Your task to perform on an android device: Add "beats solo 3" to the cart on ebay.com, then select checkout. Image 0: 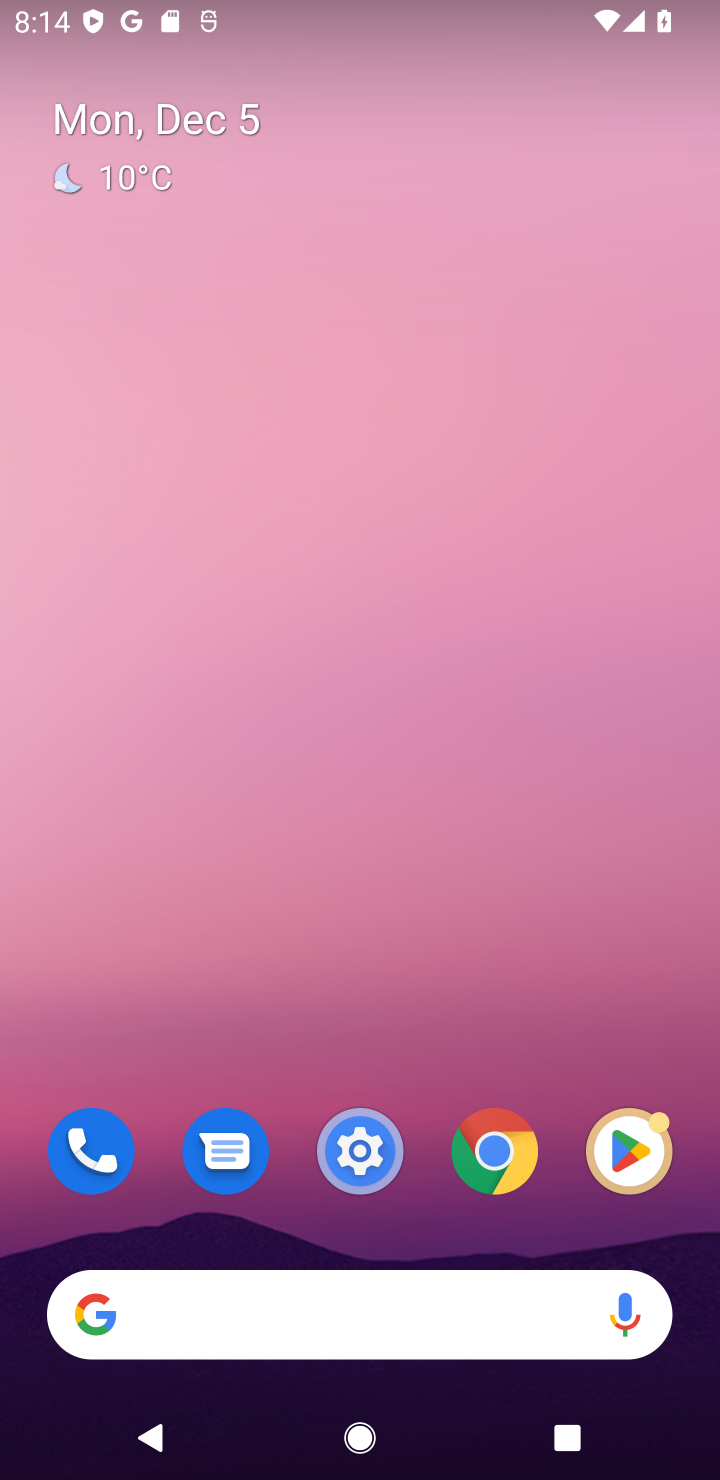
Step 0: click (356, 1326)
Your task to perform on an android device: Add "beats solo 3" to the cart on ebay.com, then select checkout. Image 1: 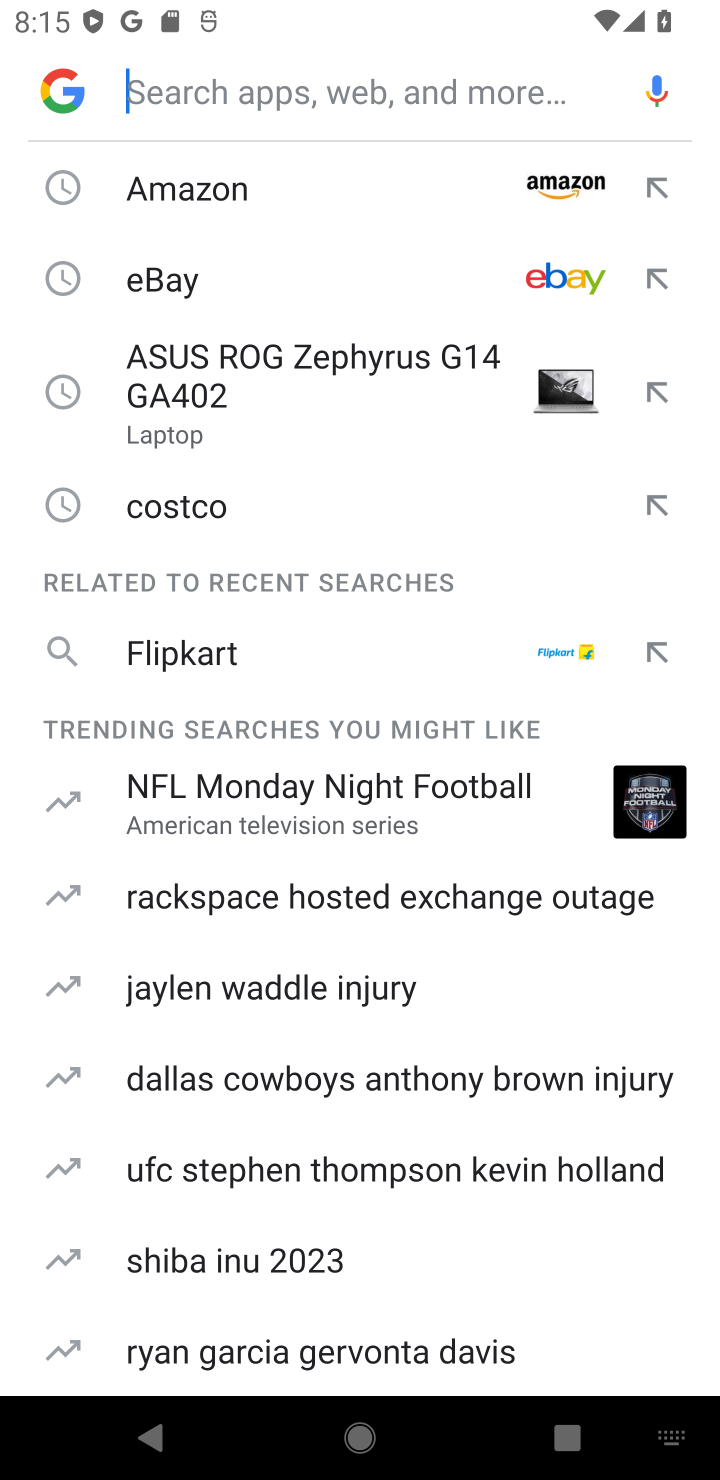
Step 1: type "ebay.com"
Your task to perform on an android device: Add "beats solo 3" to the cart on ebay.com, then select checkout. Image 2: 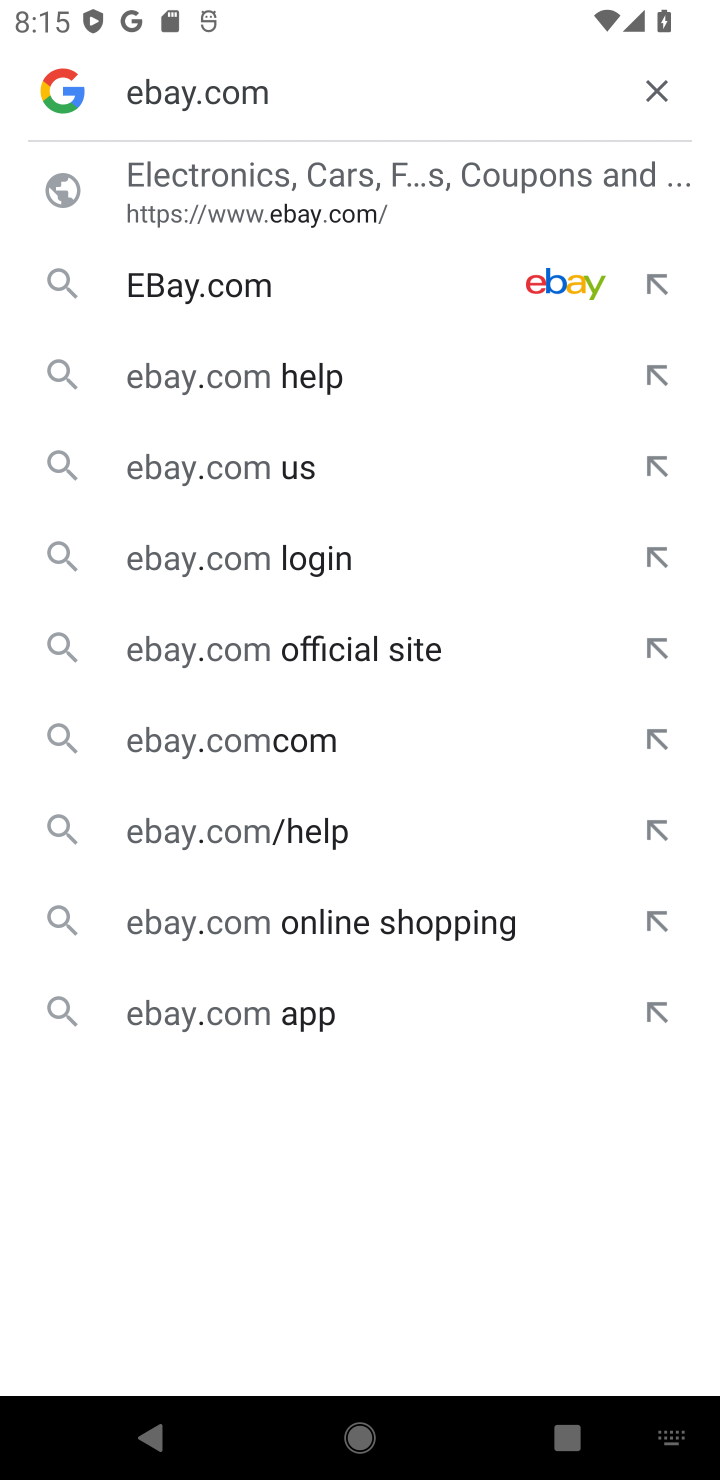
Step 2: click (379, 217)
Your task to perform on an android device: Add "beats solo 3" to the cart on ebay.com, then select checkout. Image 3: 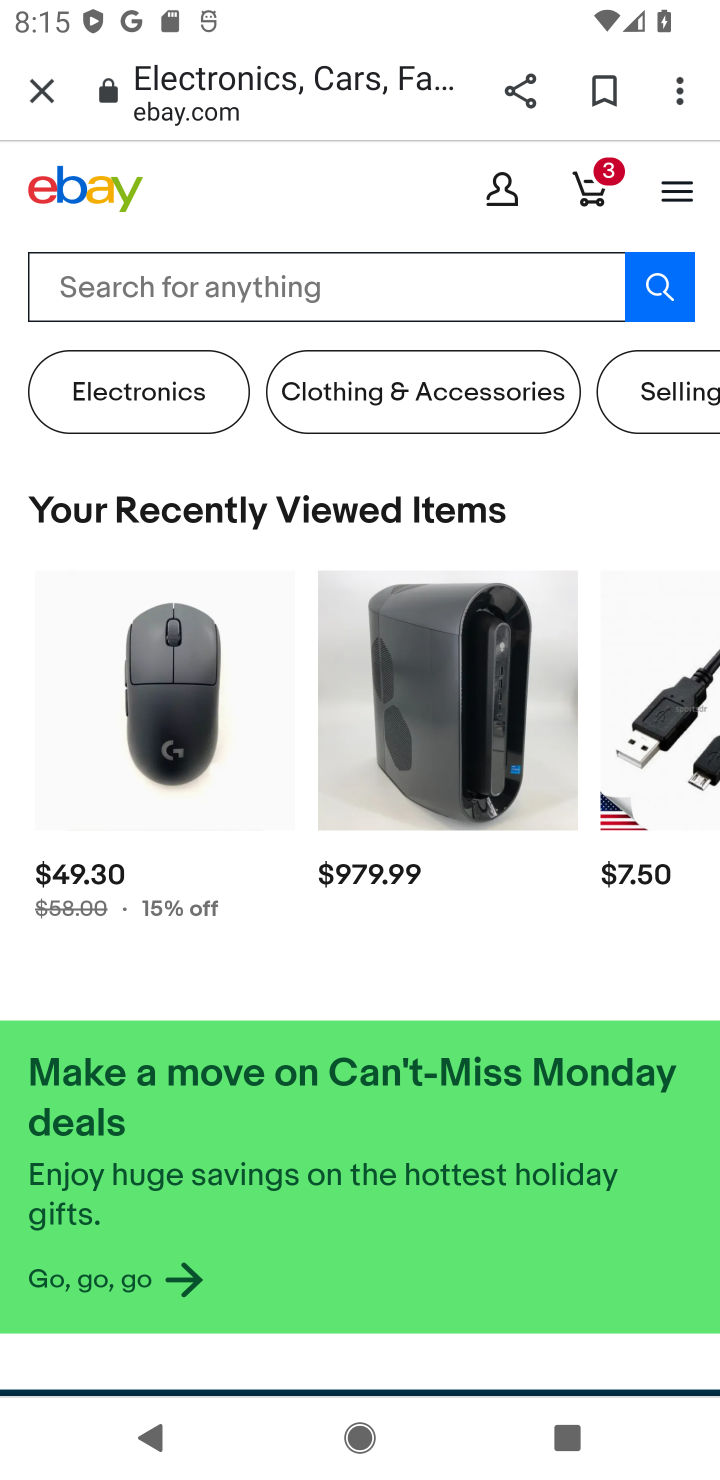
Step 3: click (224, 681)
Your task to perform on an android device: Add "beats solo 3" to the cart on ebay.com, then select checkout. Image 4: 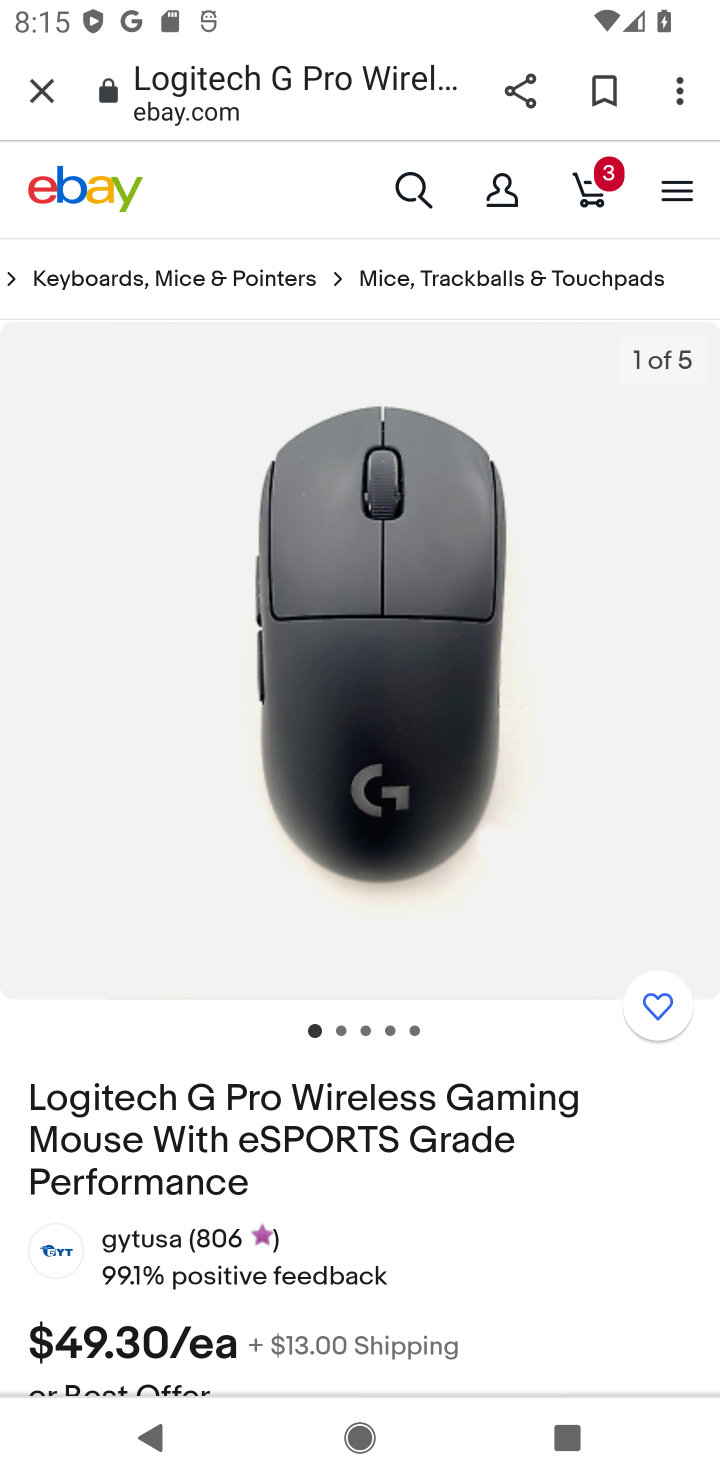
Step 4: drag from (281, 860) to (269, 293)
Your task to perform on an android device: Add "beats solo 3" to the cart on ebay.com, then select checkout. Image 5: 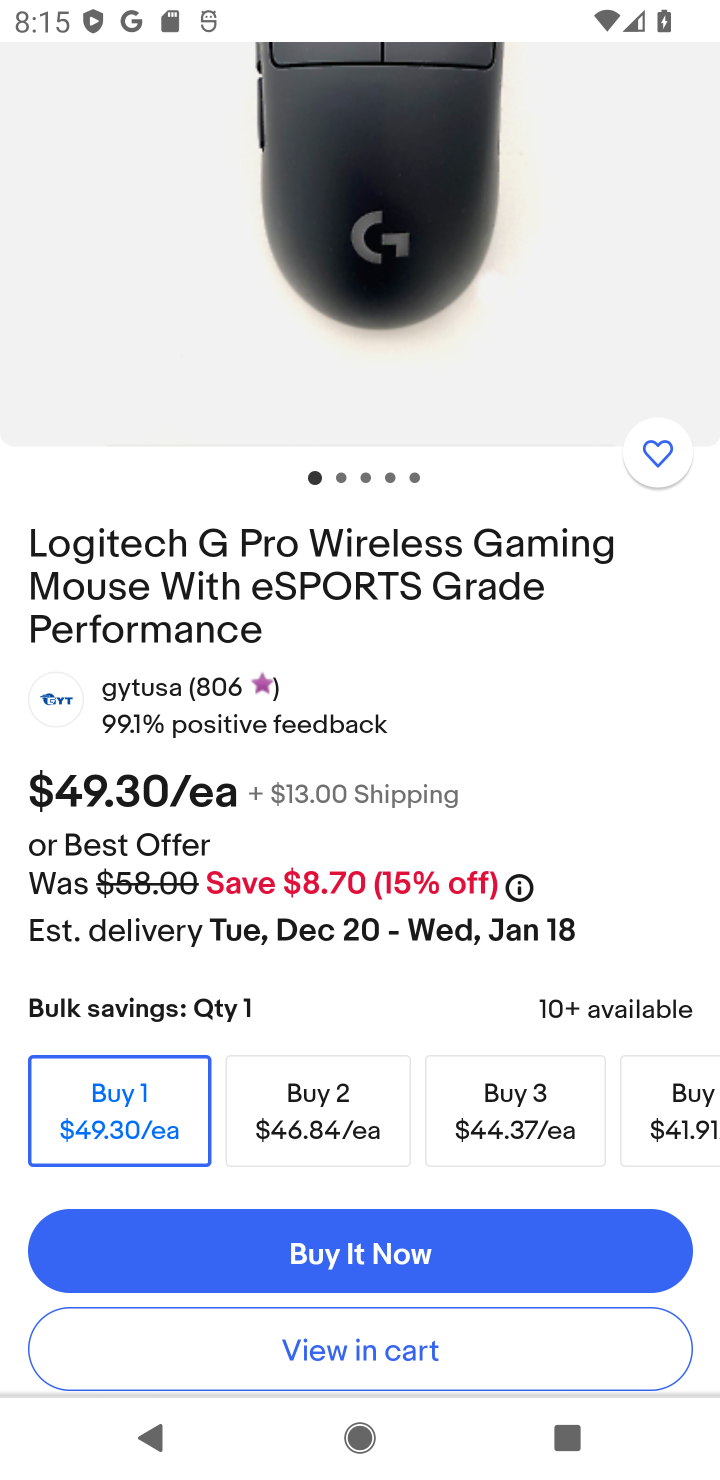
Step 5: click (486, 1257)
Your task to perform on an android device: Add "beats solo 3" to the cart on ebay.com, then select checkout. Image 6: 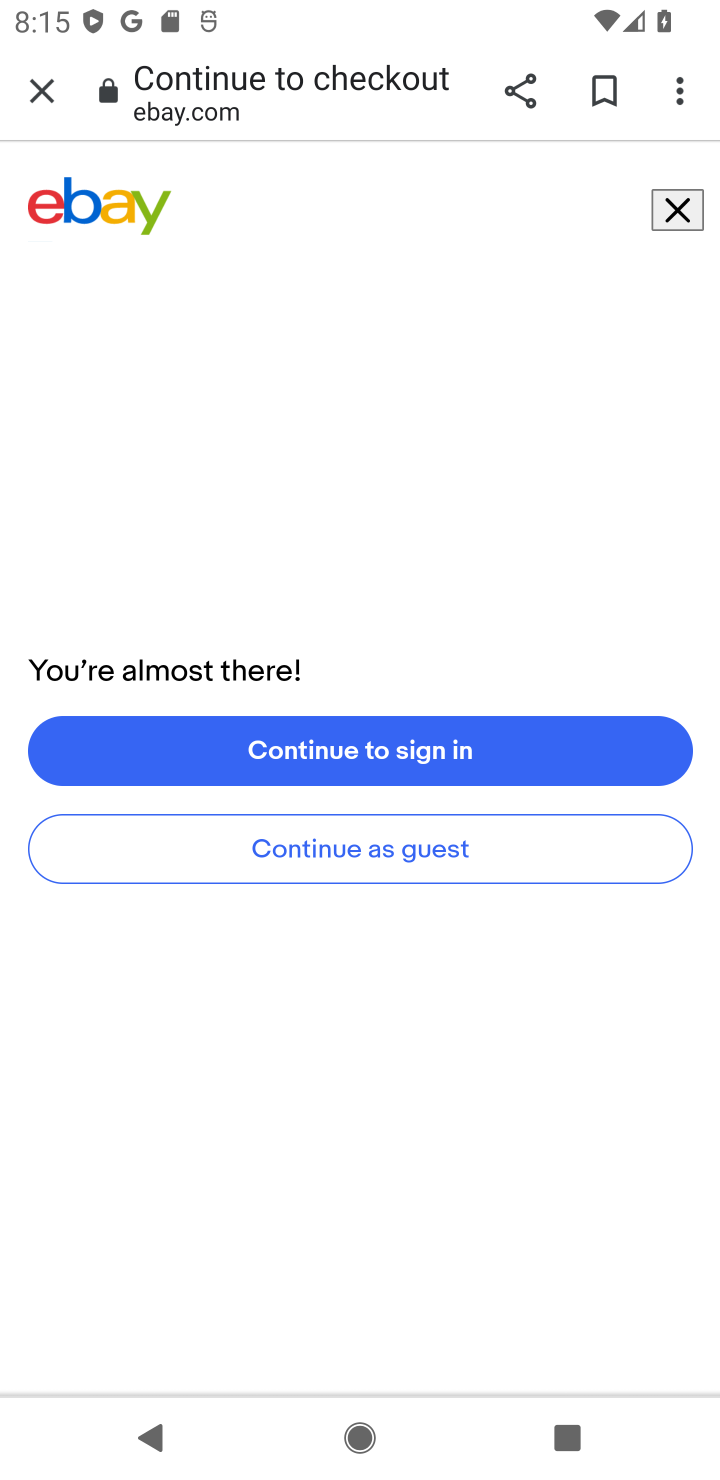
Step 6: task complete